Your task to perform on an android device: star an email in the gmail app Image 0: 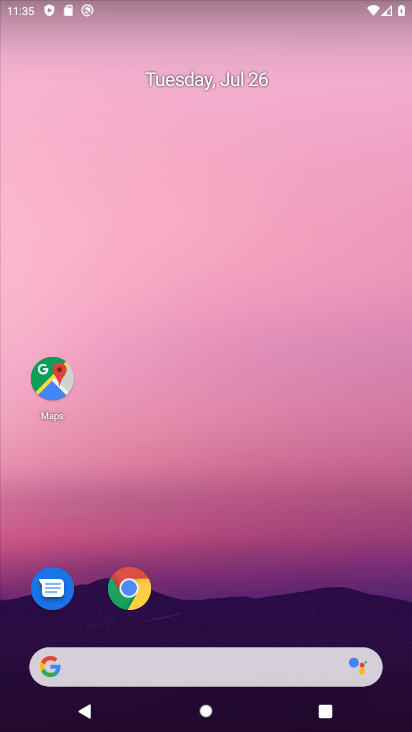
Step 0: drag from (42, 699) to (276, 23)
Your task to perform on an android device: star an email in the gmail app Image 1: 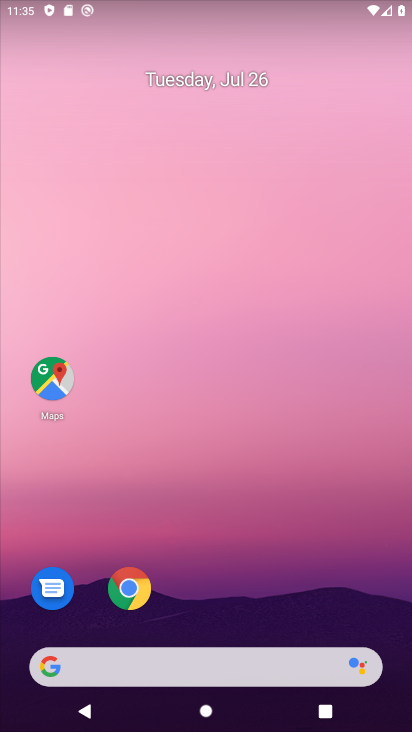
Step 1: drag from (16, 699) to (283, 116)
Your task to perform on an android device: star an email in the gmail app Image 2: 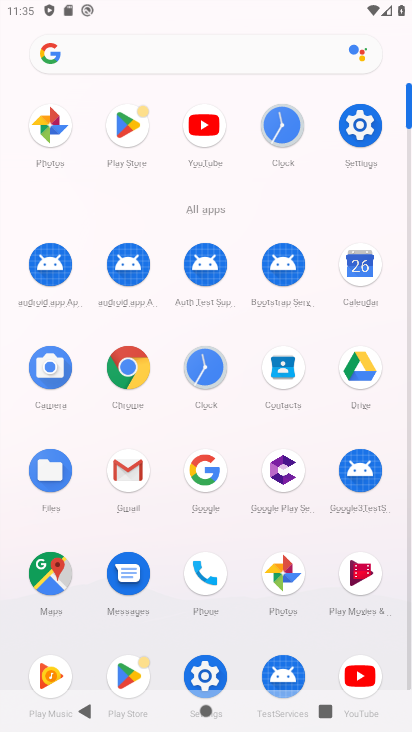
Step 2: click (135, 486)
Your task to perform on an android device: star an email in the gmail app Image 3: 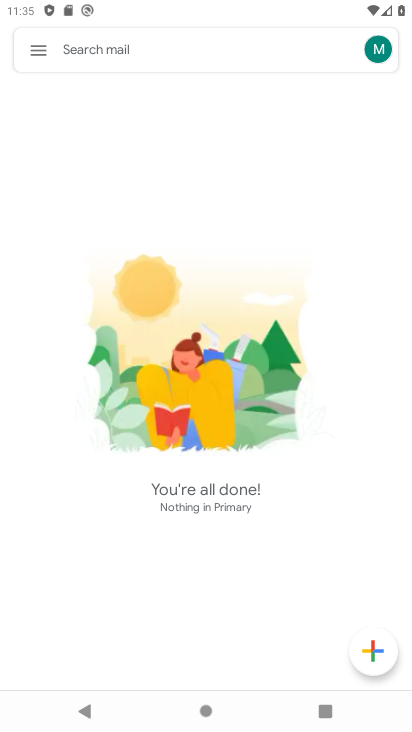
Step 3: click (25, 49)
Your task to perform on an android device: star an email in the gmail app Image 4: 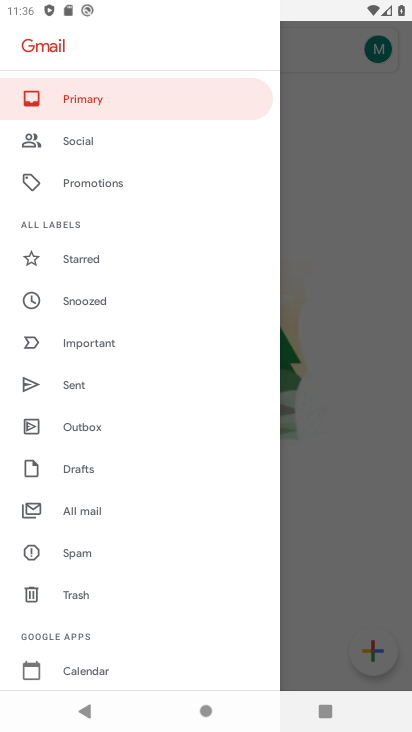
Step 4: click (97, 259)
Your task to perform on an android device: star an email in the gmail app Image 5: 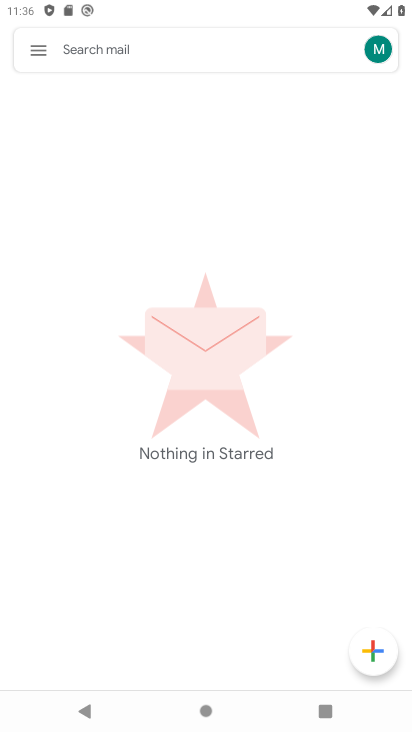
Step 5: task complete